Your task to perform on an android device: turn pop-ups off in chrome Image 0: 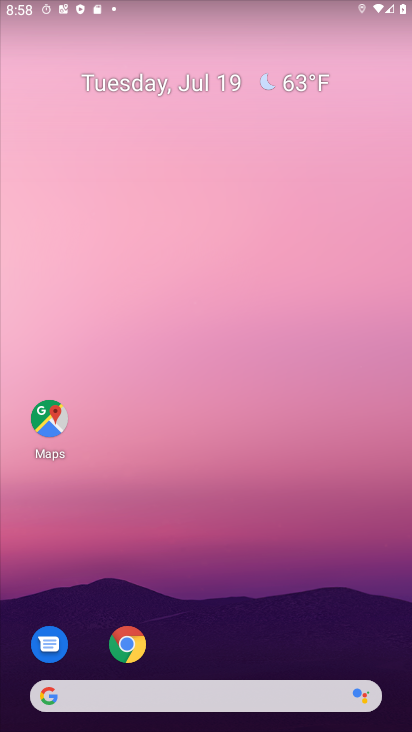
Step 0: drag from (246, 645) to (207, 193)
Your task to perform on an android device: turn pop-ups off in chrome Image 1: 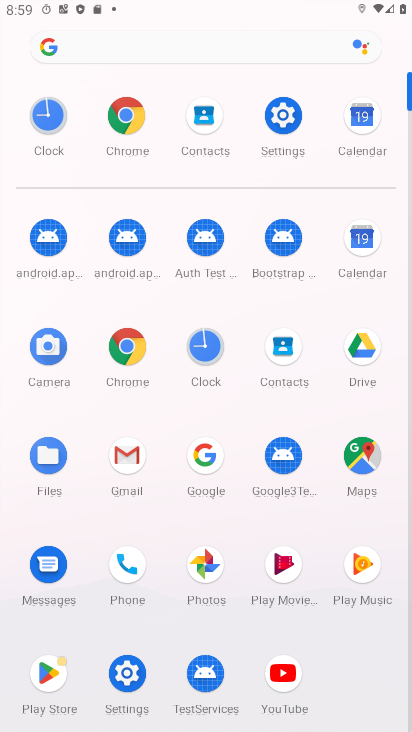
Step 1: click (130, 118)
Your task to perform on an android device: turn pop-ups off in chrome Image 2: 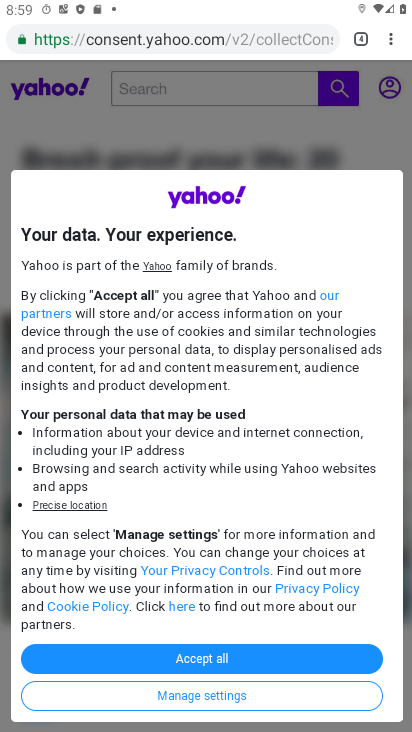
Step 2: drag from (395, 41) to (266, 471)
Your task to perform on an android device: turn pop-ups off in chrome Image 3: 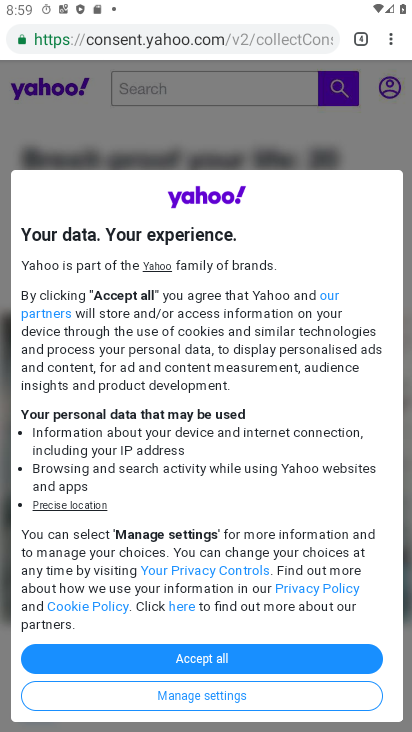
Step 3: click (273, 474)
Your task to perform on an android device: turn pop-ups off in chrome Image 4: 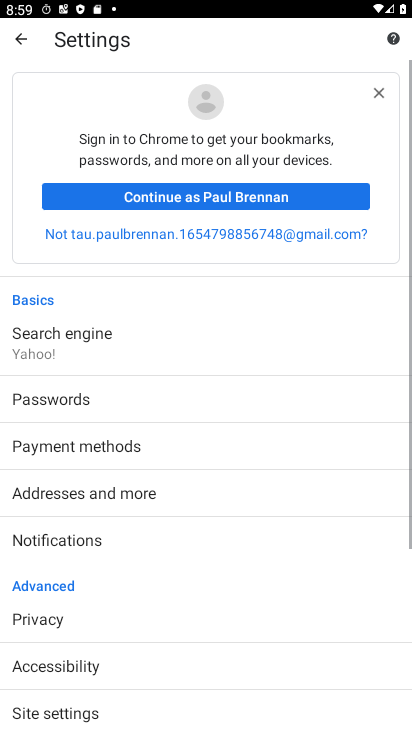
Step 4: drag from (133, 553) to (96, 219)
Your task to perform on an android device: turn pop-ups off in chrome Image 5: 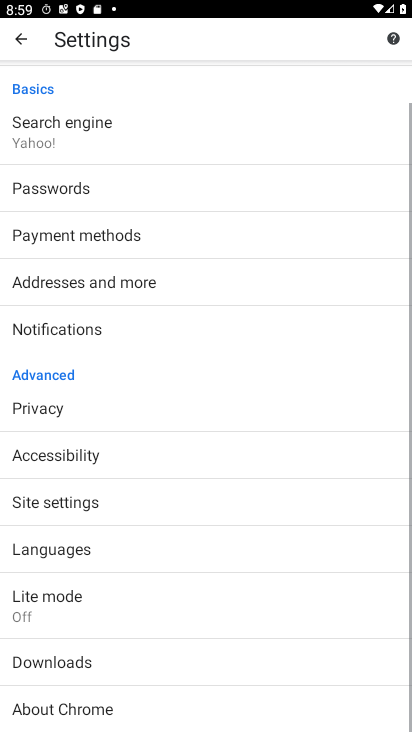
Step 5: drag from (121, 500) to (105, 231)
Your task to perform on an android device: turn pop-ups off in chrome Image 6: 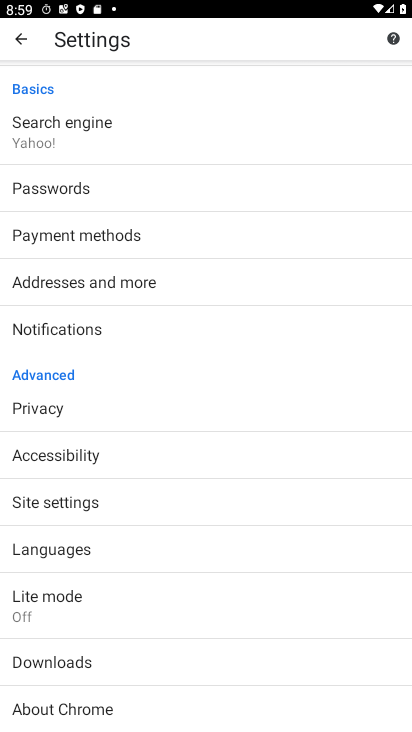
Step 6: click (44, 501)
Your task to perform on an android device: turn pop-ups off in chrome Image 7: 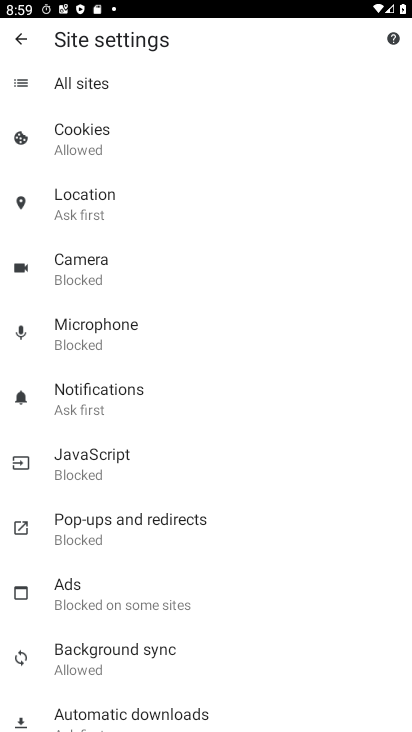
Step 7: click (83, 516)
Your task to perform on an android device: turn pop-ups off in chrome Image 8: 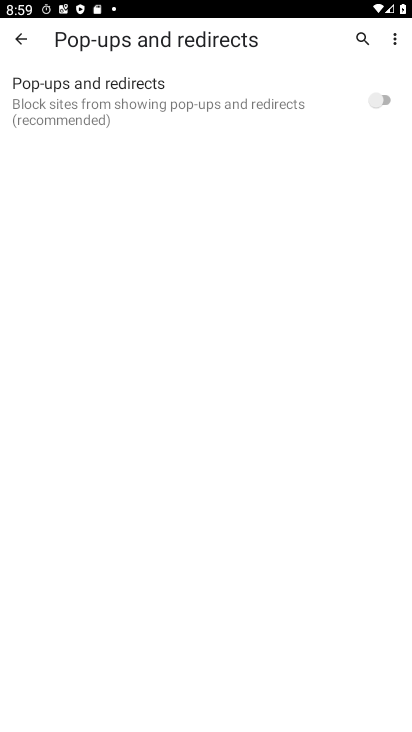
Step 8: task complete